Your task to perform on an android device: install app "LinkedIn" Image 0: 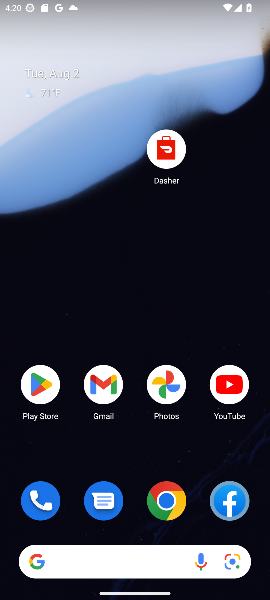
Step 0: click (31, 376)
Your task to perform on an android device: install app "LinkedIn" Image 1: 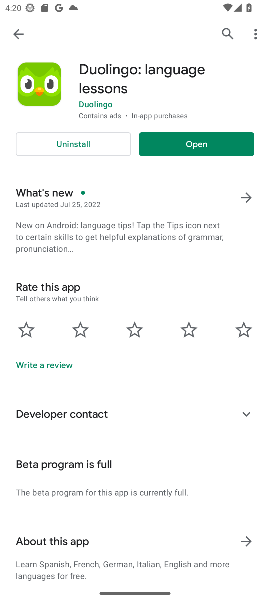
Step 1: click (220, 35)
Your task to perform on an android device: install app "LinkedIn" Image 2: 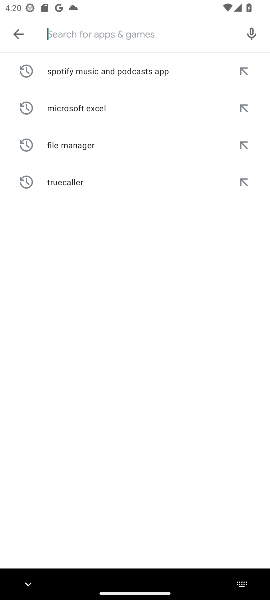
Step 2: type "LinkedIn"
Your task to perform on an android device: install app "LinkedIn" Image 3: 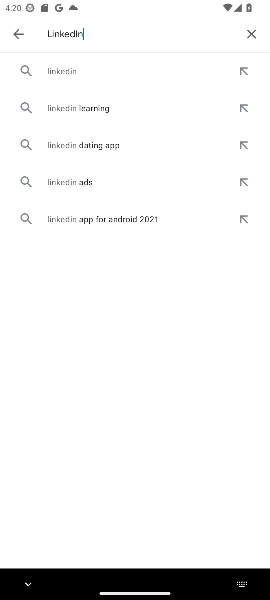
Step 3: click (56, 74)
Your task to perform on an android device: install app "LinkedIn" Image 4: 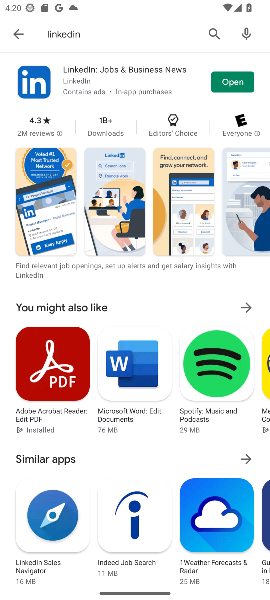
Step 4: task complete